Your task to perform on an android device: allow notifications from all sites in the chrome app Image 0: 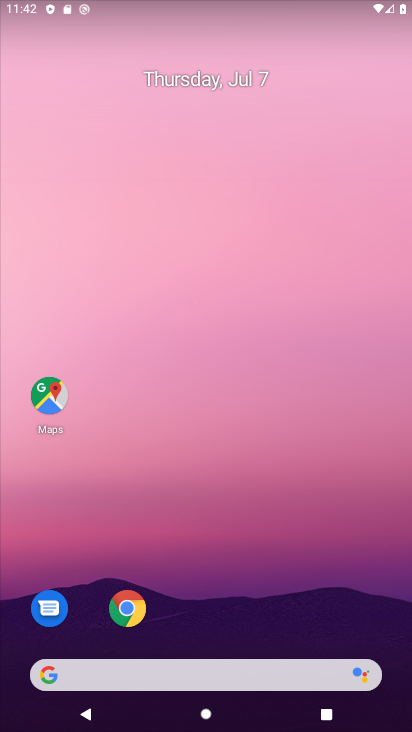
Step 0: press home button
Your task to perform on an android device: allow notifications from all sites in the chrome app Image 1: 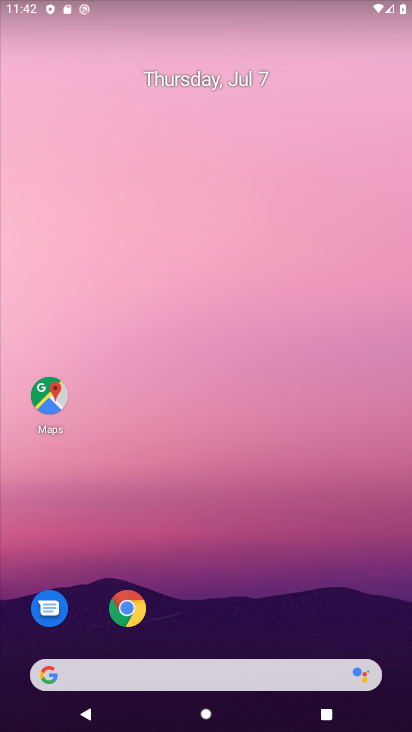
Step 1: click (117, 609)
Your task to perform on an android device: allow notifications from all sites in the chrome app Image 2: 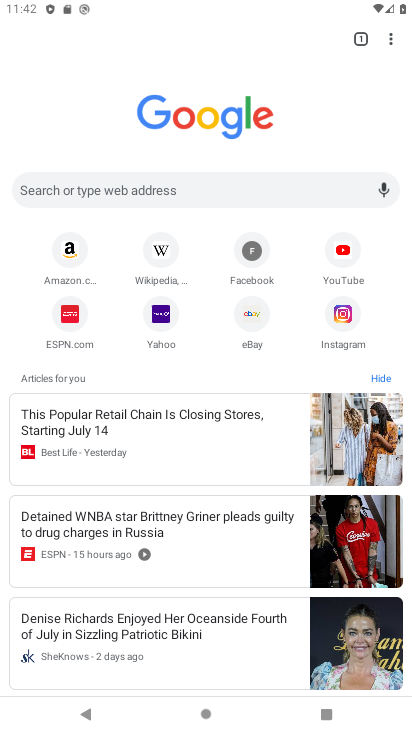
Step 2: click (392, 45)
Your task to perform on an android device: allow notifications from all sites in the chrome app Image 3: 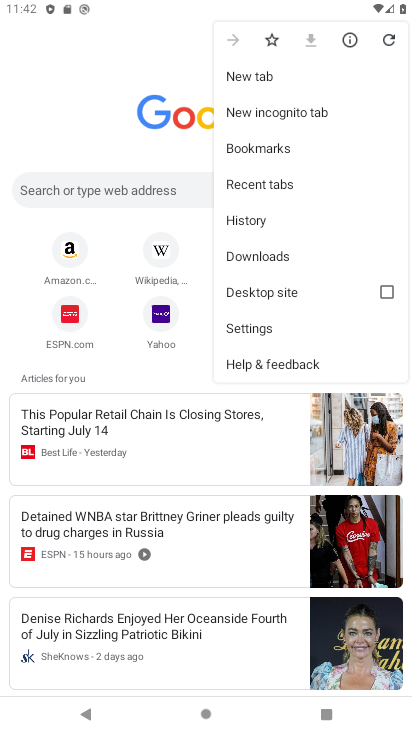
Step 3: click (278, 325)
Your task to perform on an android device: allow notifications from all sites in the chrome app Image 4: 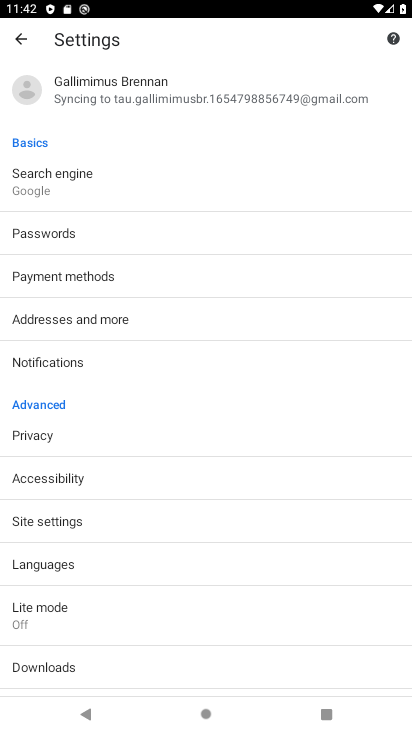
Step 4: drag from (79, 521) to (86, 455)
Your task to perform on an android device: allow notifications from all sites in the chrome app Image 5: 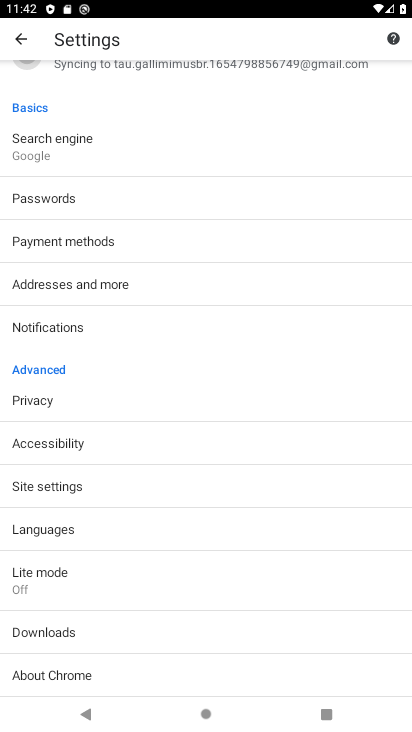
Step 5: click (86, 319)
Your task to perform on an android device: allow notifications from all sites in the chrome app Image 6: 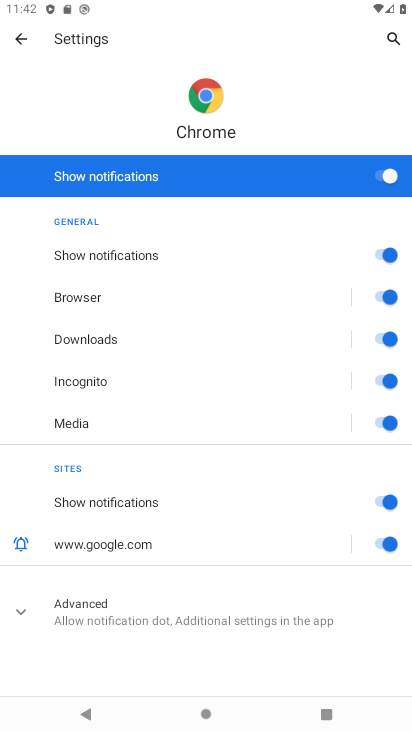
Step 6: task complete